Your task to perform on an android device: turn off priority inbox in the gmail app Image 0: 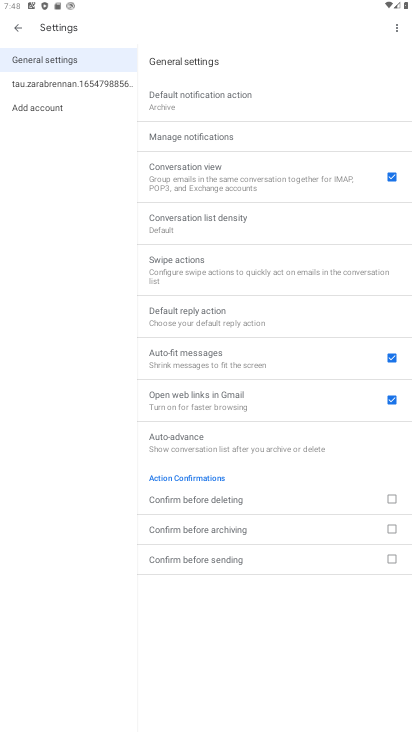
Step 0: click (52, 79)
Your task to perform on an android device: turn off priority inbox in the gmail app Image 1: 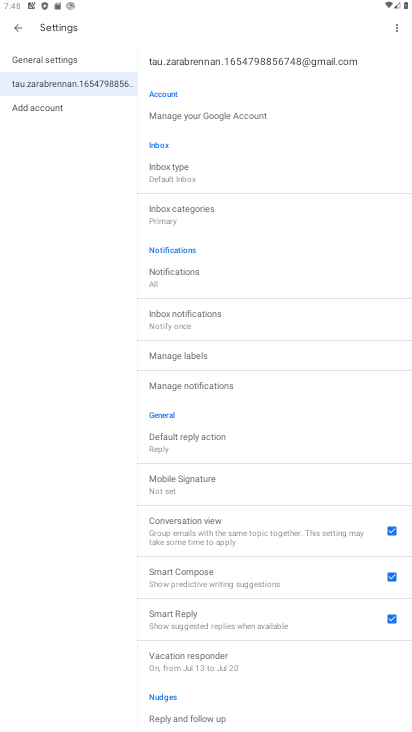
Step 1: click (176, 190)
Your task to perform on an android device: turn off priority inbox in the gmail app Image 2: 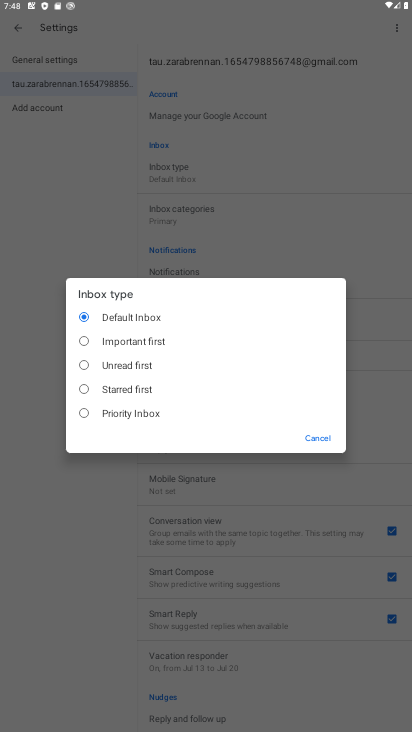
Step 2: click (90, 335)
Your task to perform on an android device: turn off priority inbox in the gmail app Image 3: 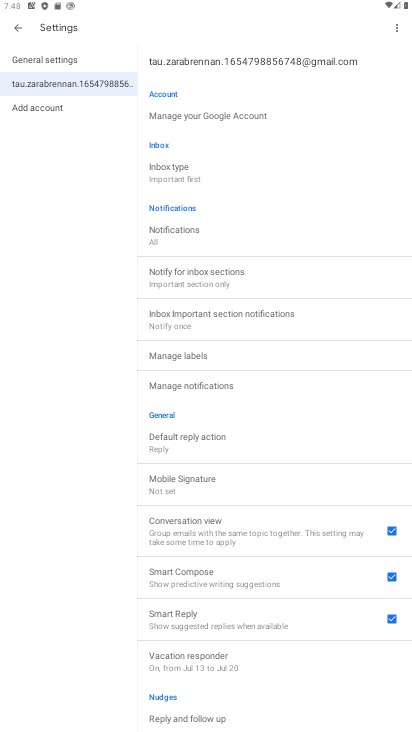
Step 3: task complete